Your task to perform on an android device: Go to wifi settings Image 0: 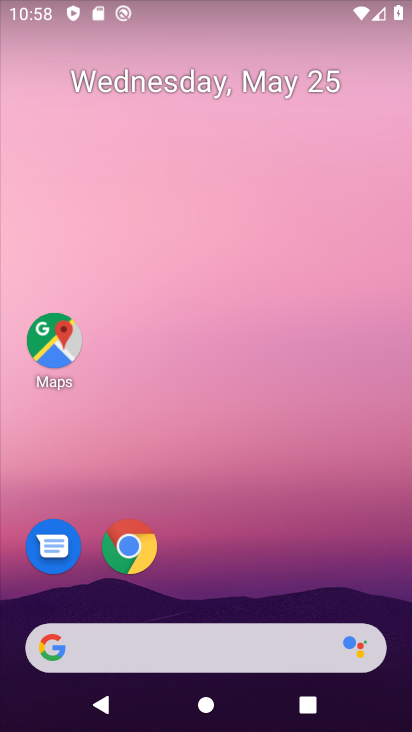
Step 0: drag from (365, 555) to (305, 160)
Your task to perform on an android device: Go to wifi settings Image 1: 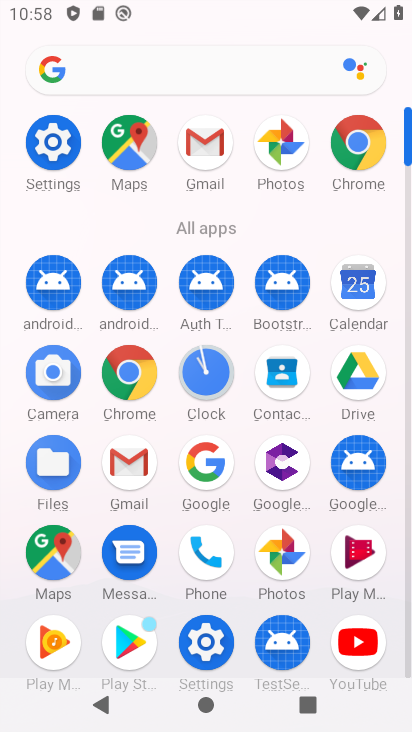
Step 1: click (216, 637)
Your task to perform on an android device: Go to wifi settings Image 2: 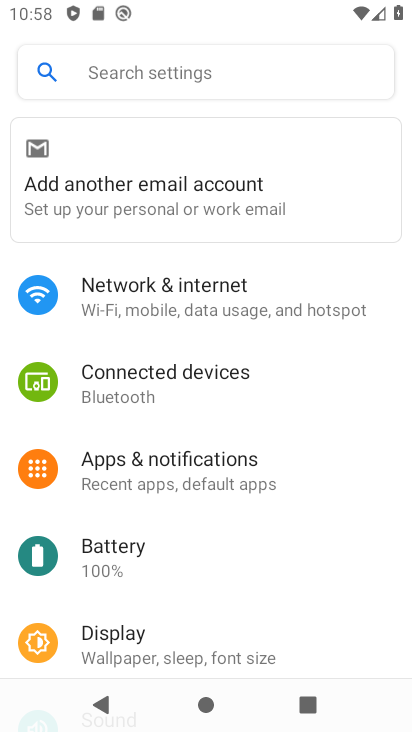
Step 2: click (180, 320)
Your task to perform on an android device: Go to wifi settings Image 3: 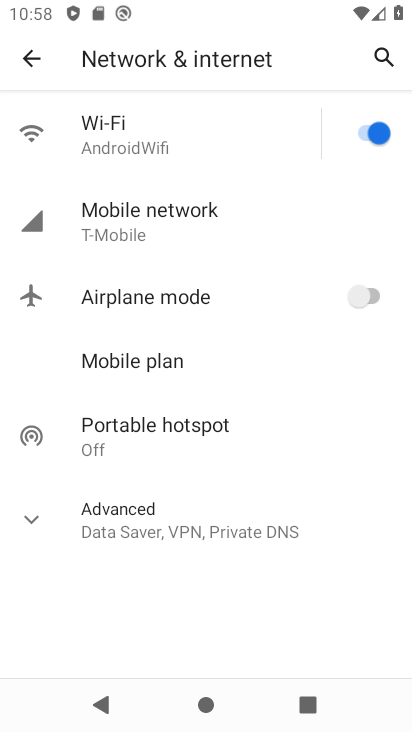
Step 3: click (145, 149)
Your task to perform on an android device: Go to wifi settings Image 4: 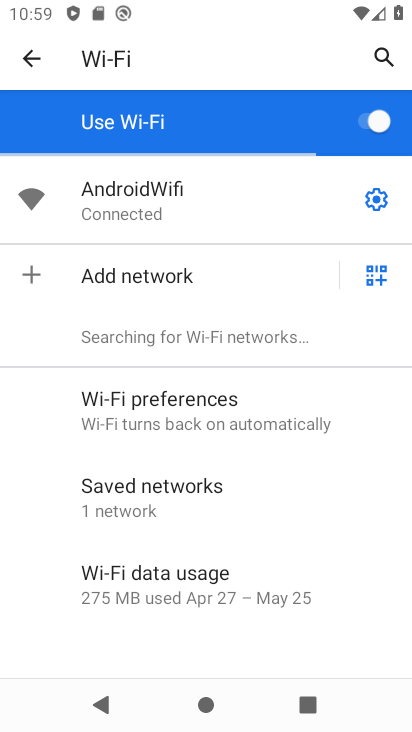
Step 4: task complete